Your task to perform on an android device: Open the Play Movies app and select the watchlist tab. Image 0: 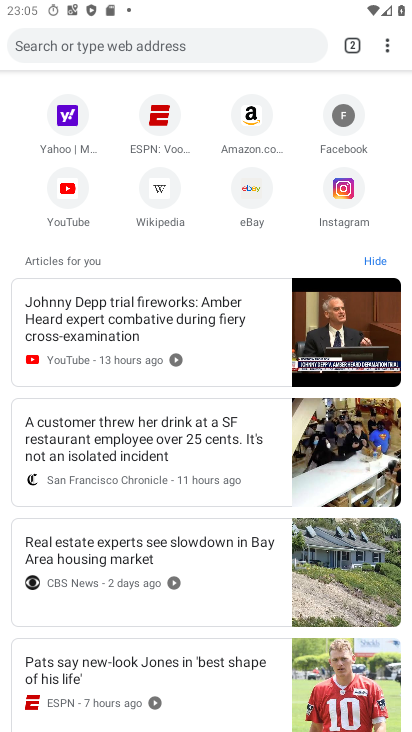
Step 0: press home button
Your task to perform on an android device: Open the Play Movies app and select the watchlist tab. Image 1: 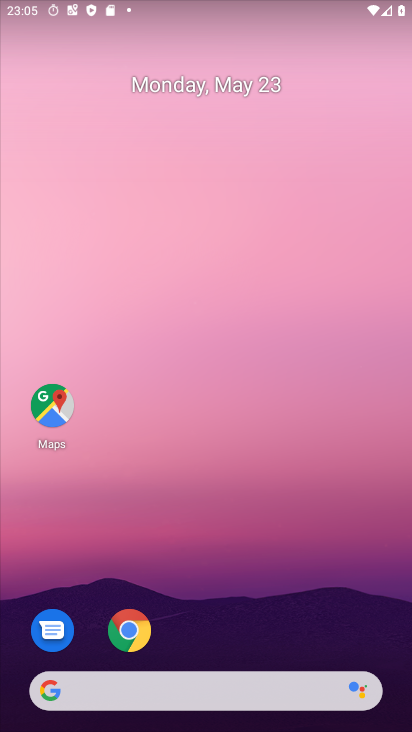
Step 1: drag from (337, 664) to (351, 17)
Your task to perform on an android device: Open the Play Movies app and select the watchlist tab. Image 2: 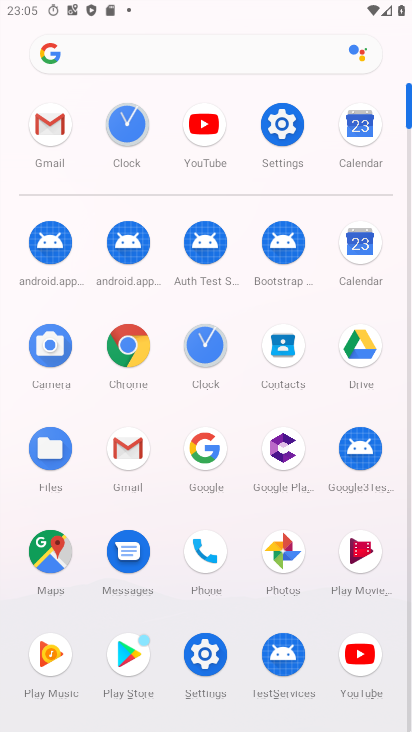
Step 2: click (368, 549)
Your task to perform on an android device: Open the Play Movies app and select the watchlist tab. Image 3: 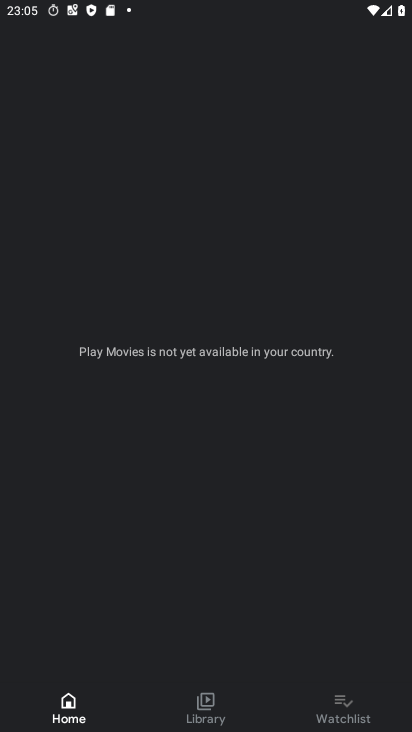
Step 3: click (342, 716)
Your task to perform on an android device: Open the Play Movies app and select the watchlist tab. Image 4: 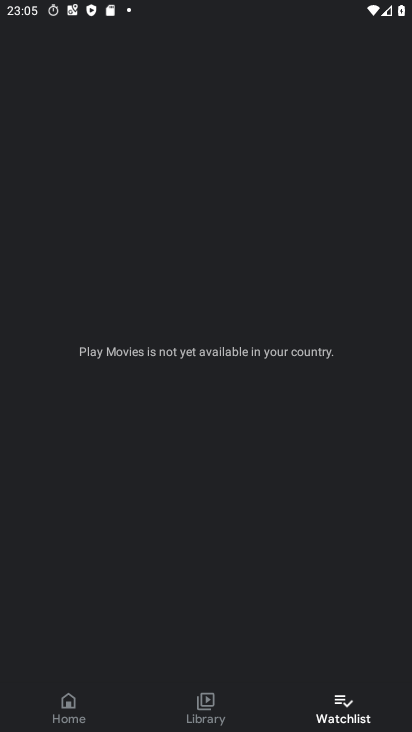
Step 4: task complete